Your task to perform on an android device: turn notification dots on Image 0: 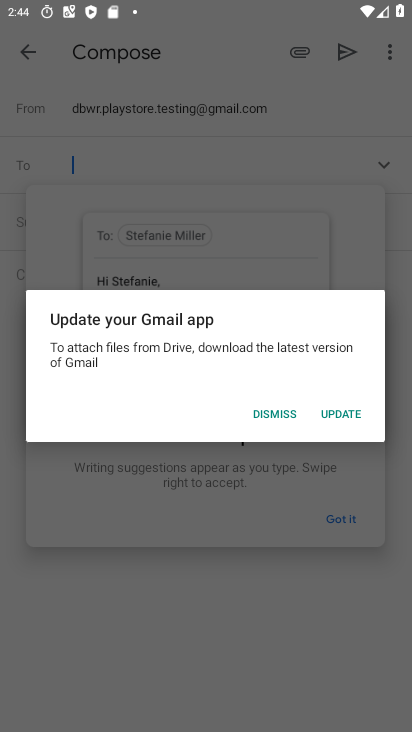
Step 0: press home button
Your task to perform on an android device: turn notification dots on Image 1: 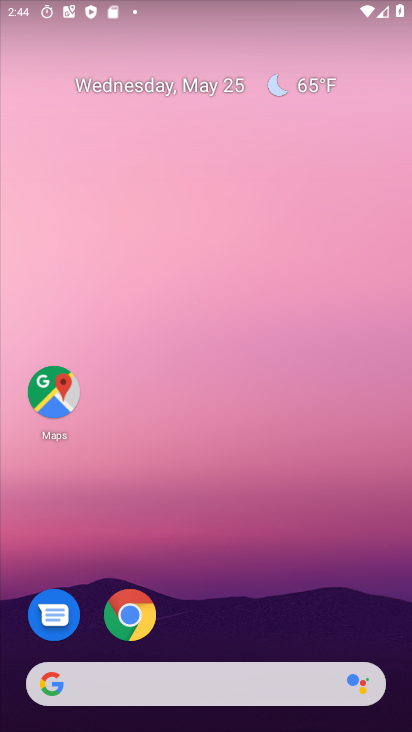
Step 1: drag from (400, 693) to (397, 171)
Your task to perform on an android device: turn notification dots on Image 2: 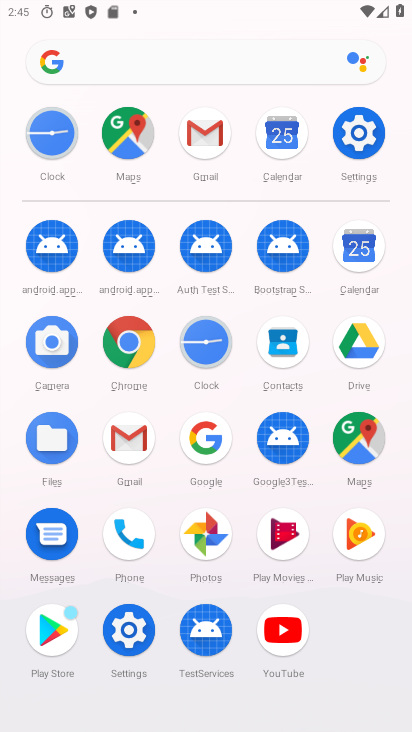
Step 2: click (356, 140)
Your task to perform on an android device: turn notification dots on Image 3: 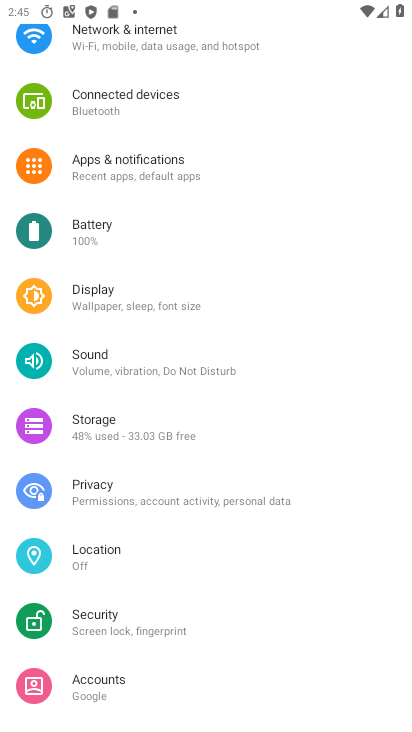
Step 3: click (142, 155)
Your task to perform on an android device: turn notification dots on Image 4: 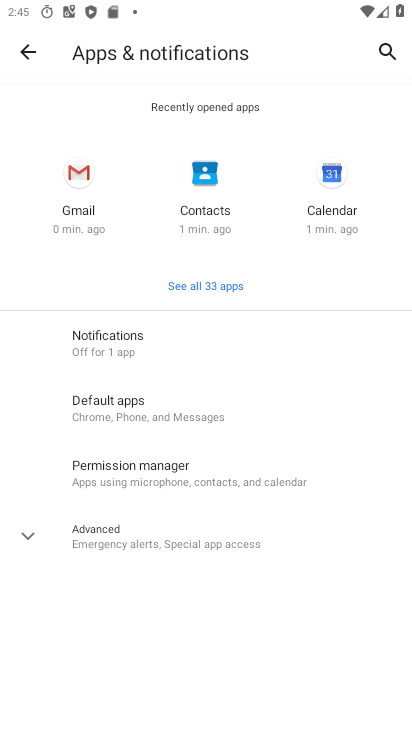
Step 4: click (64, 328)
Your task to perform on an android device: turn notification dots on Image 5: 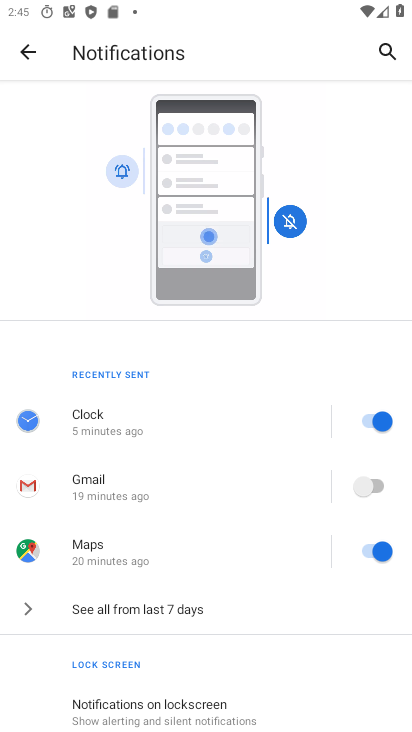
Step 5: drag from (269, 652) to (302, 163)
Your task to perform on an android device: turn notification dots on Image 6: 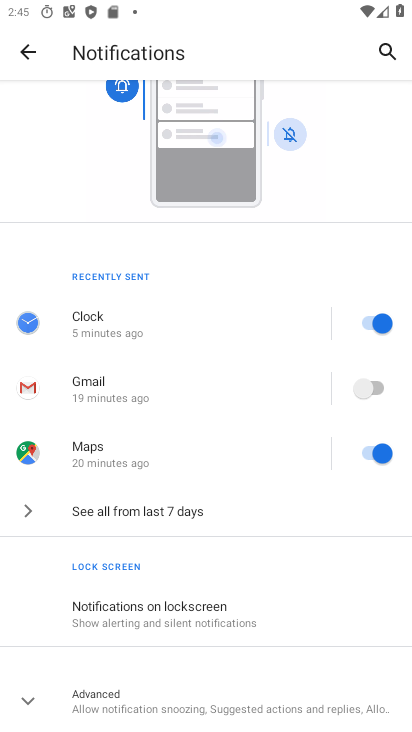
Step 6: click (47, 688)
Your task to perform on an android device: turn notification dots on Image 7: 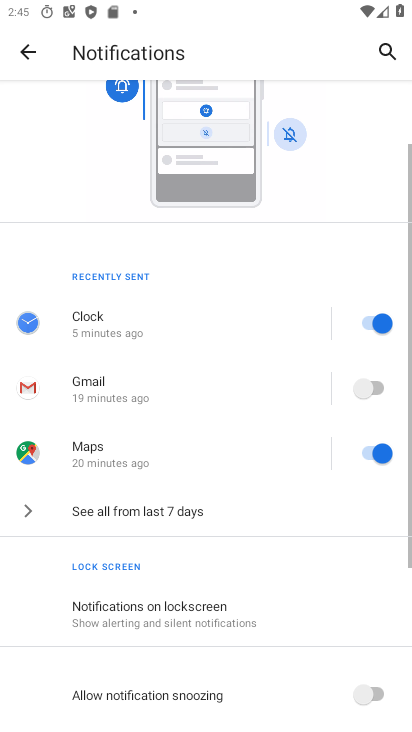
Step 7: task complete